Your task to perform on an android device: Check the news Image 0: 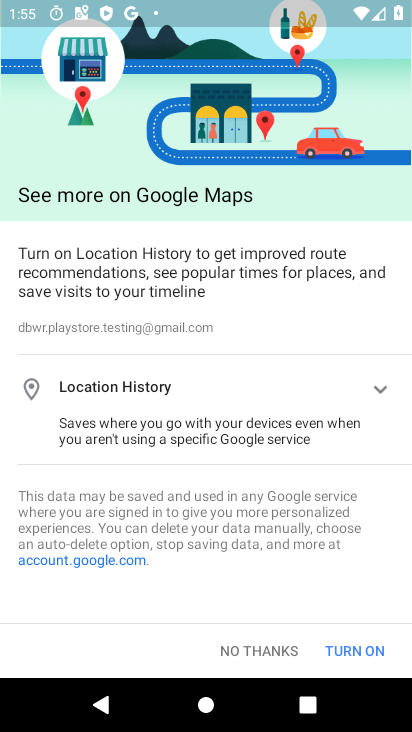
Step 0: press home button
Your task to perform on an android device: Check the news Image 1: 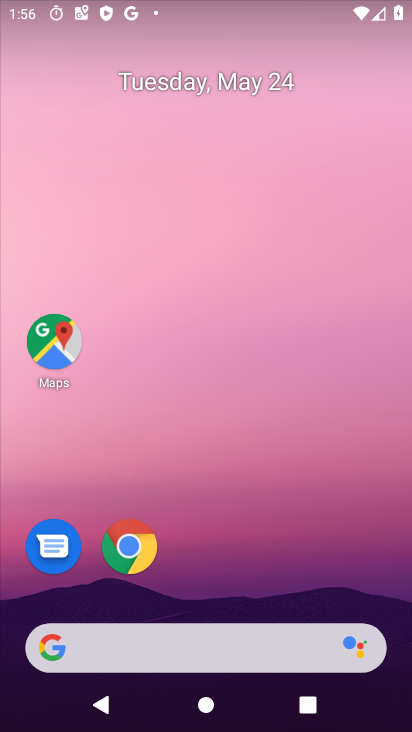
Step 1: task complete